Your task to perform on an android device: see tabs open on other devices in the chrome app Image 0: 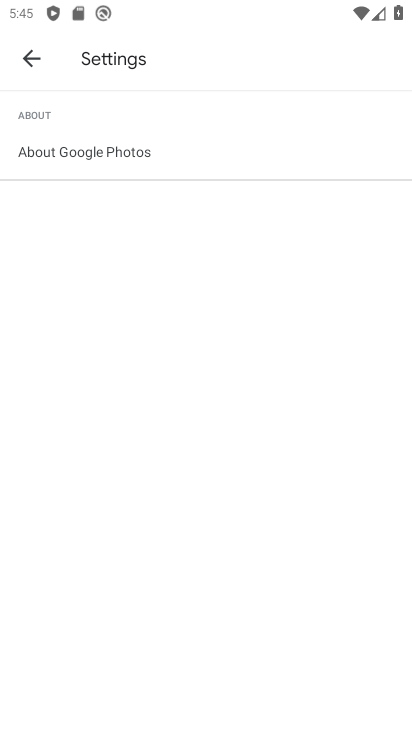
Step 0: press home button
Your task to perform on an android device: see tabs open on other devices in the chrome app Image 1: 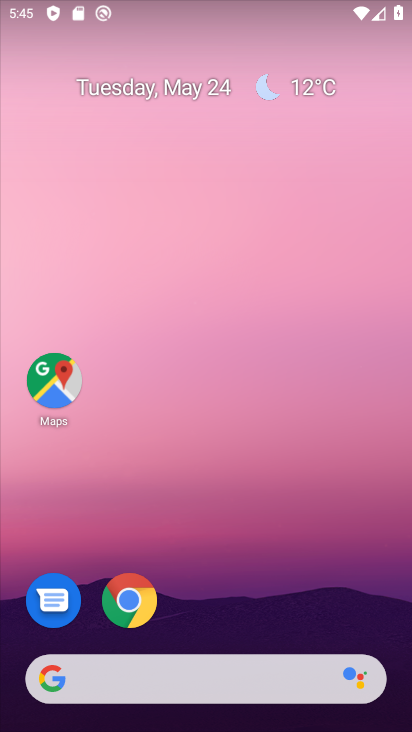
Step 1: drag from (247, 666) to (164, 25)
Your task to perform on an android device: see tabs open on other devices in the chrome app Image 2: 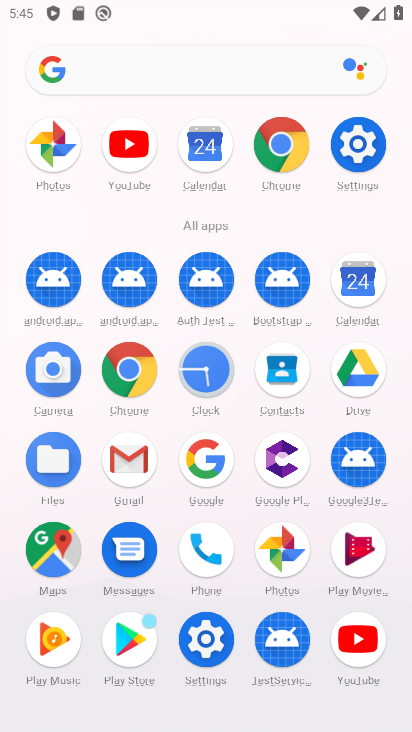
Step 2: click (146, 376)
Your task to perform on an android device: see tabs open on other devices in the chrome app Image 3: 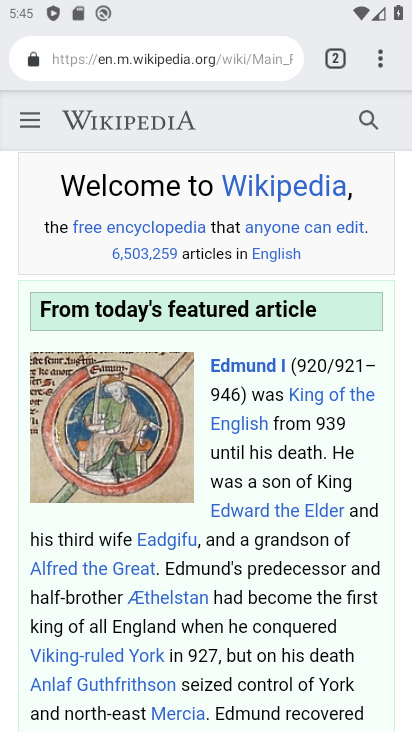
Step 3: task complete